Your task to perform on an android device: open app "Gmail" Image 0: 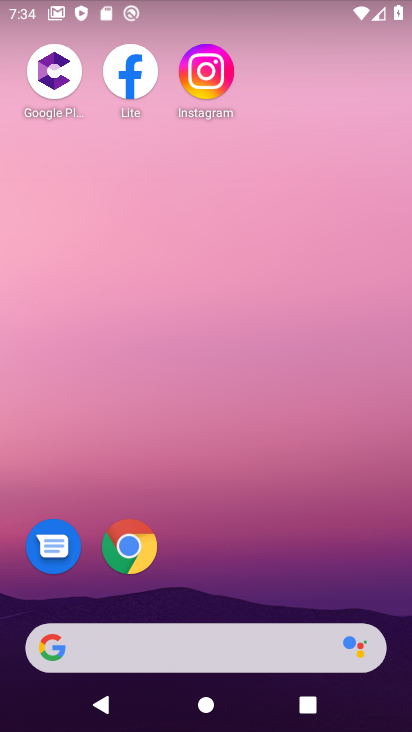
Step 0: drag from (266, 558) to (317, 20)
Your task to perform on an android device: open app "Gmail" Image 1: 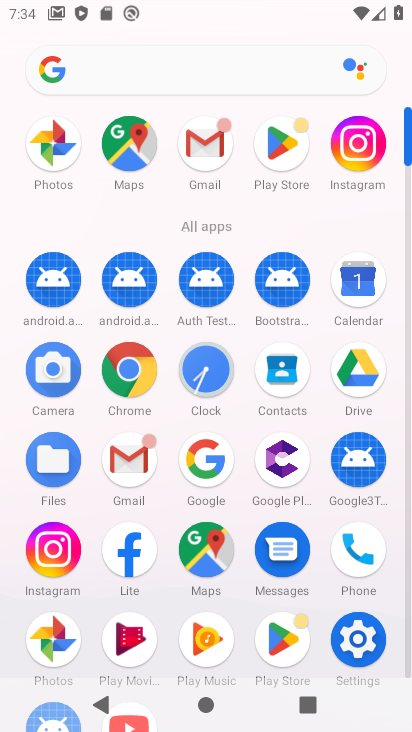
Step 1: click (214, 152)
Your task to perform on an android device: open app "Gmail" Image 2: 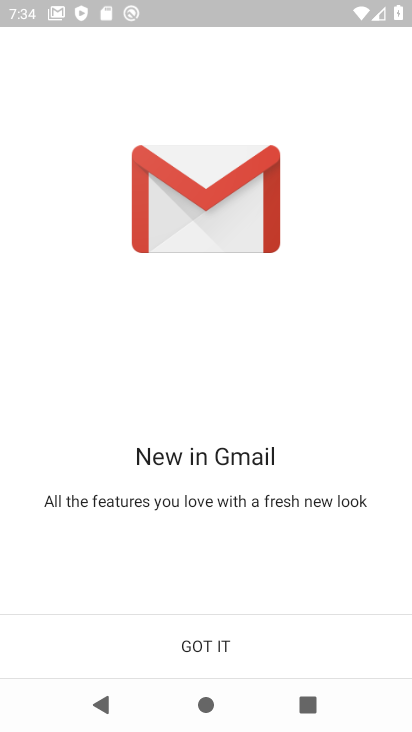
Step 2: click (226, 643)
Your task to perform on an android device: open app "Gmail" Image 3: 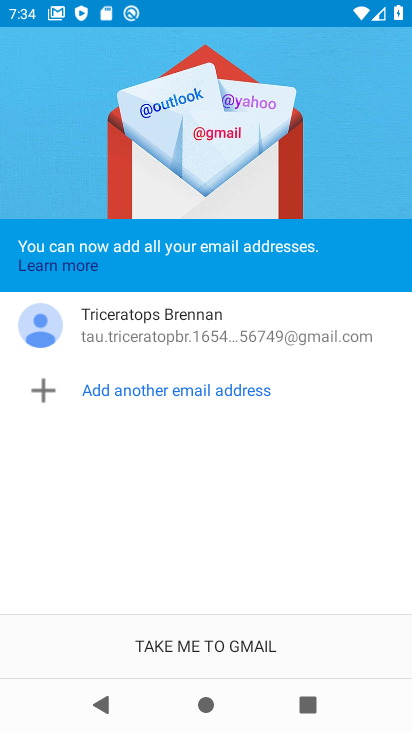
Step 3: click (226, 643)
Your task to perform on an android device: open app "Gmail" Image 4: 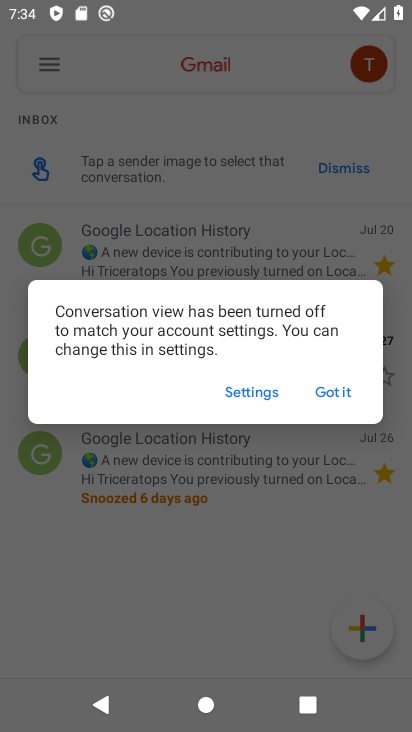
Step 4: click (335, 390)
Your task to perform on an android device: open app "Gmail" Image 5: 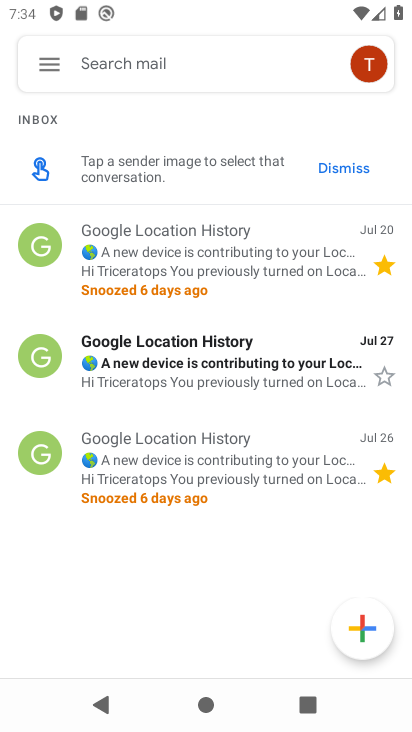
Step 5: task complete